Your task to perform on an android device: Is it going to rain tomorrow? Image 0: 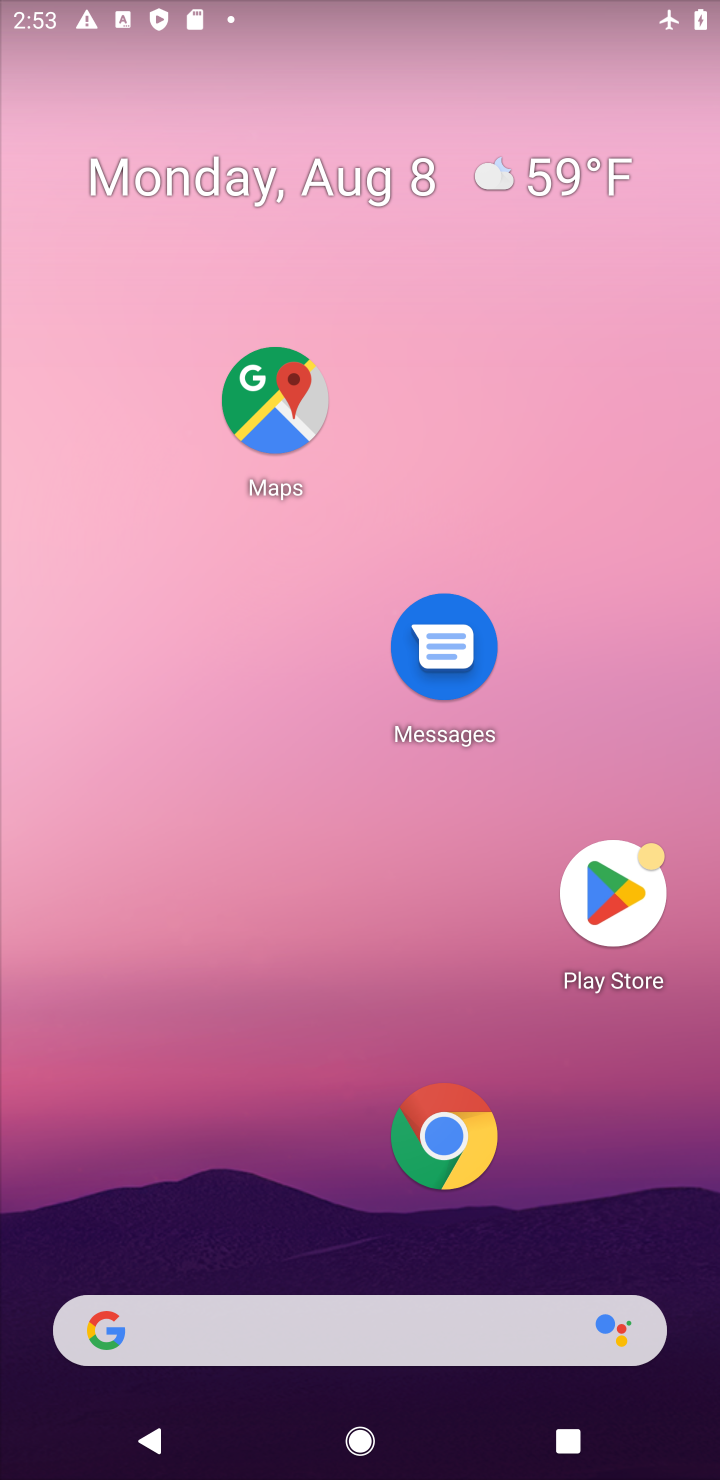
Step 0: click (163, 1325)
Your task to perform on an android device: Is it going to rain tomorrow? Image 1: 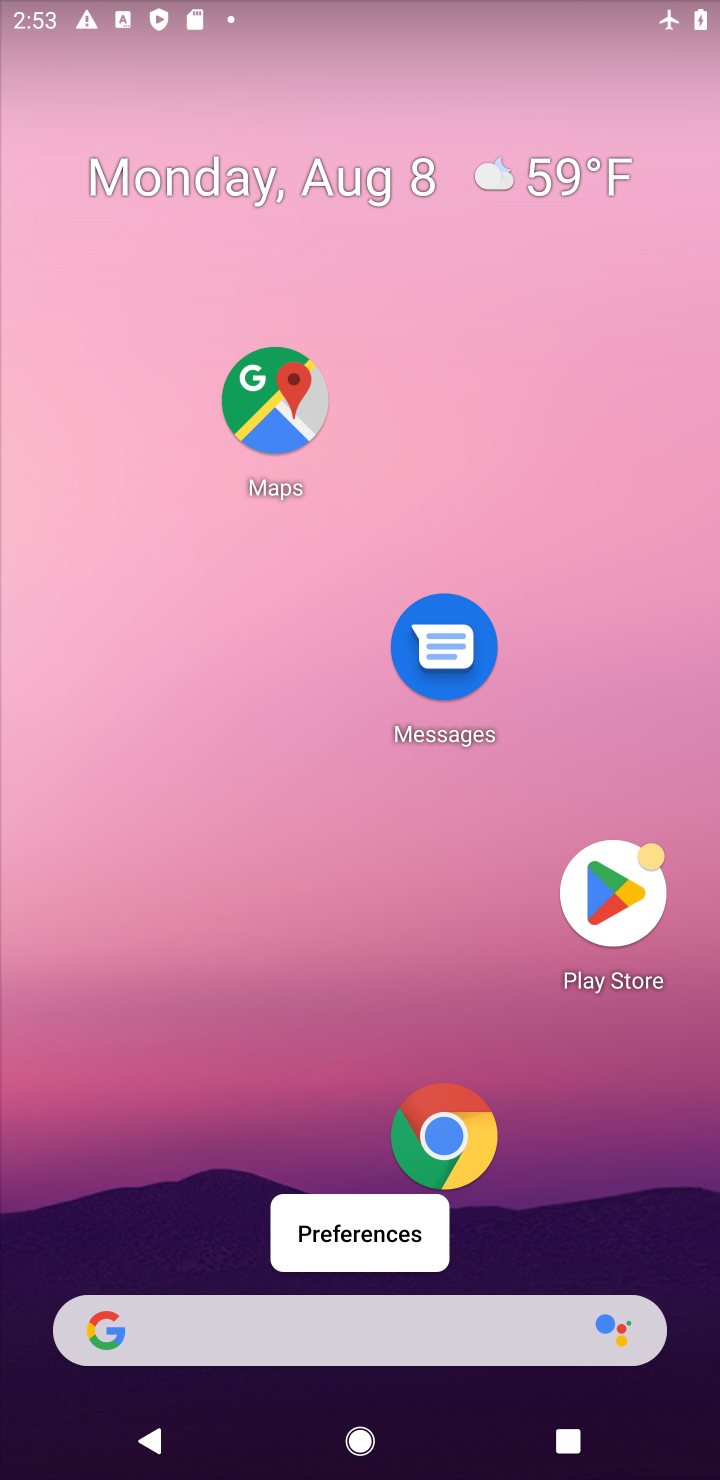
Step 1: click (186, 1307)
Your task to perform on an android device: Is it going to rain tomorrow? Image 2: 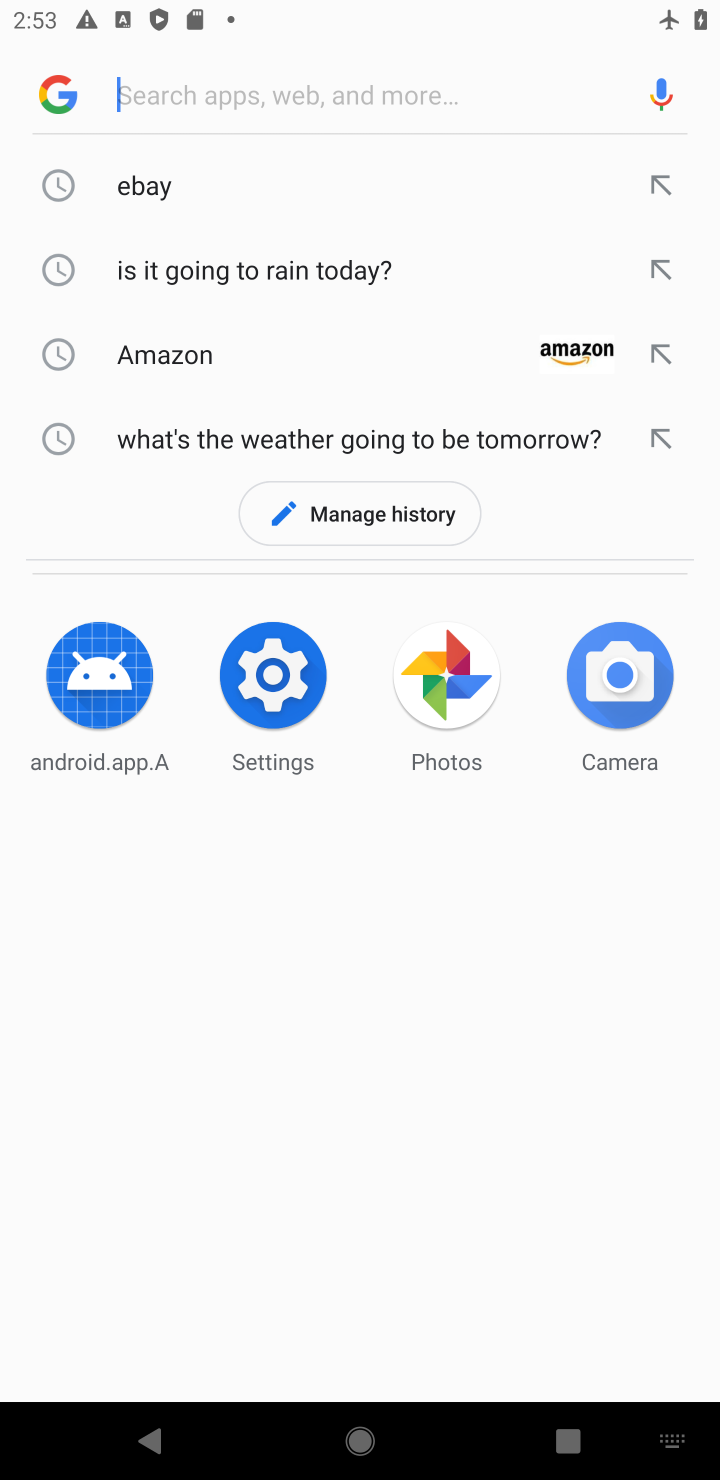
Step 2: type "Is it going to rain tomorrow?"
Your task to perform on an android device: Is it going to rain tomorrow? Image 3: 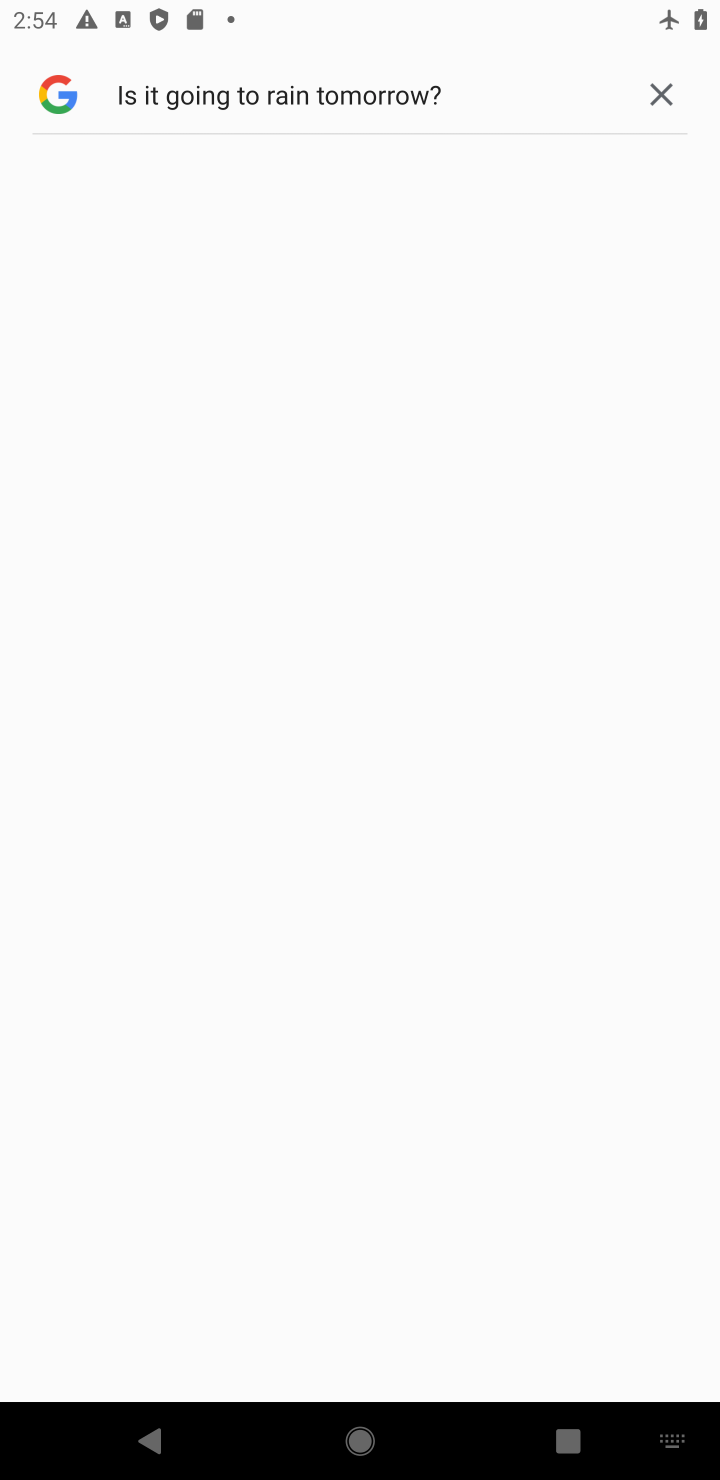
Step 3: task complete